Your task to perform on an android device: open app "NewsBreak: Local News & Alerts" (install if not already installed) Image 0: 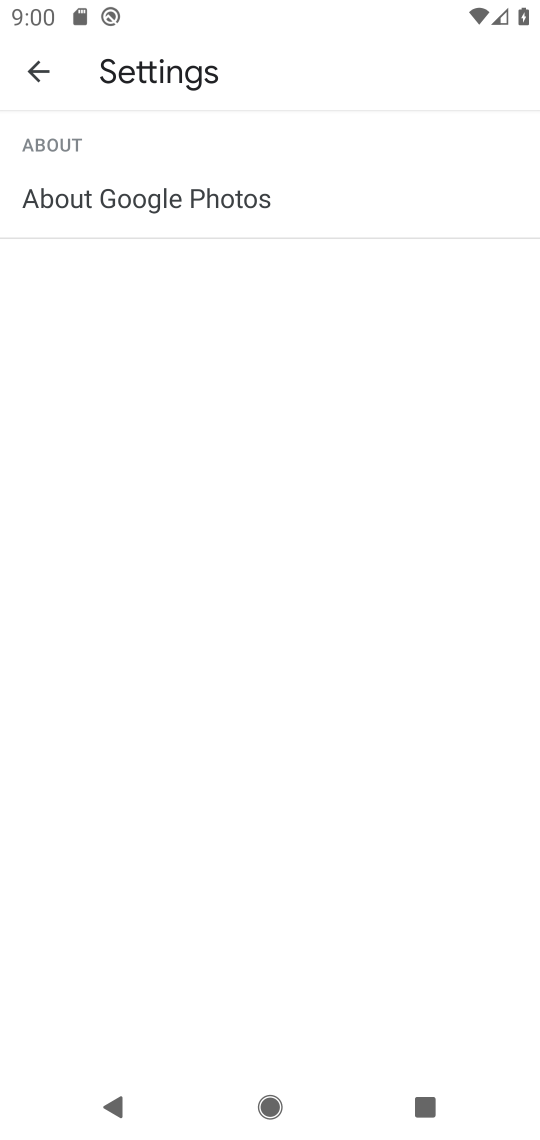
Step 0: press home button
Your task to perform on an android device: open app "NewsBreak: Local News & Alerts" (install if not already installed) Image 1: 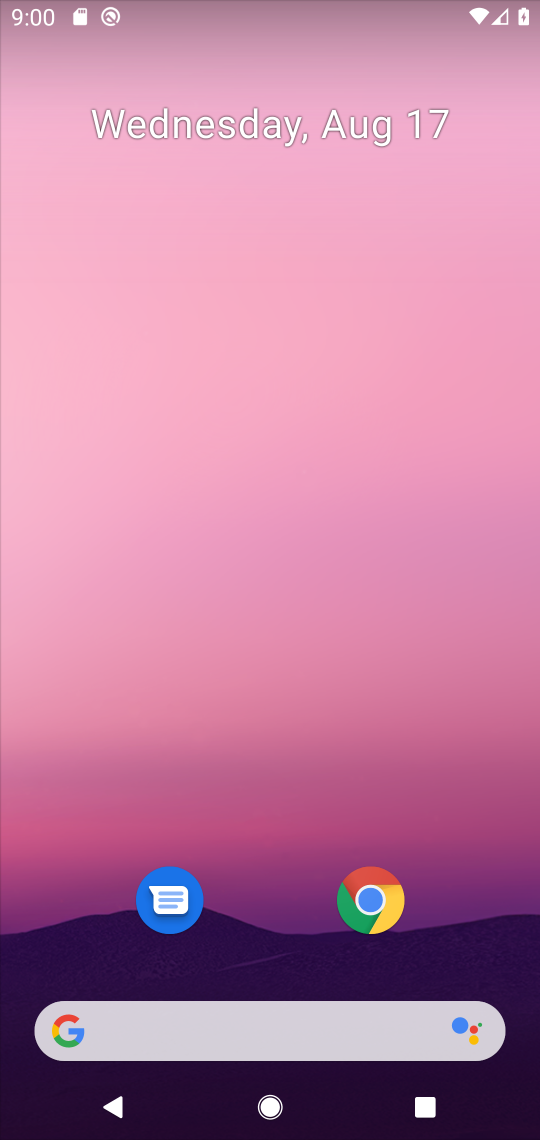
Step 1: drag from (197, 859) to (163, 145)
Your task to perform on an android device: open app "NewsBreak: Local News & Alerts" (install if not already installed) Image 2: 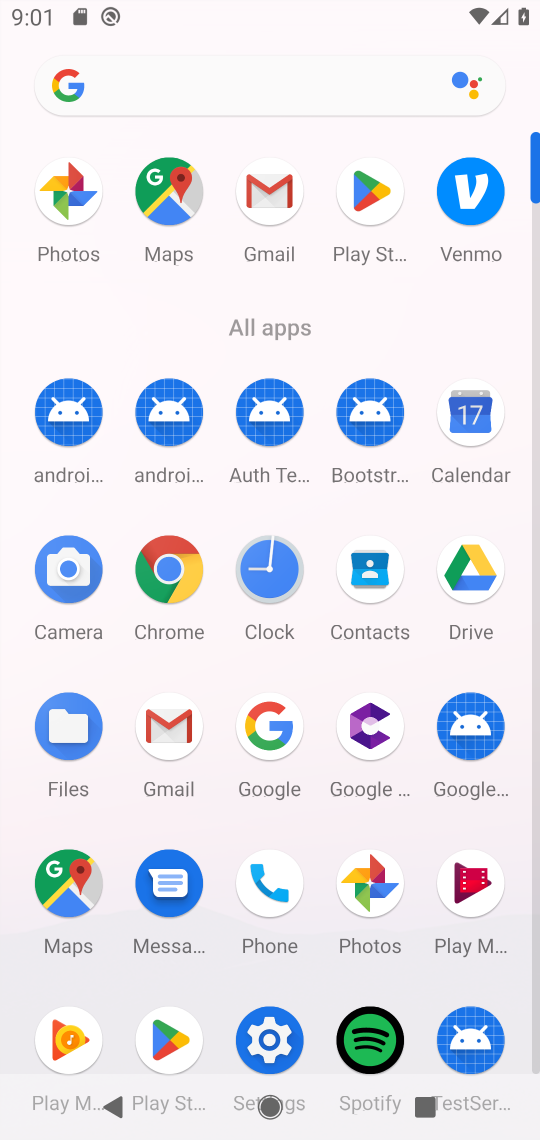
Step 2: click (364, 235)
Your task to perform on an android device: open app "NewsBreak: Local News & Alerts" (install if not already installed) Image 3: 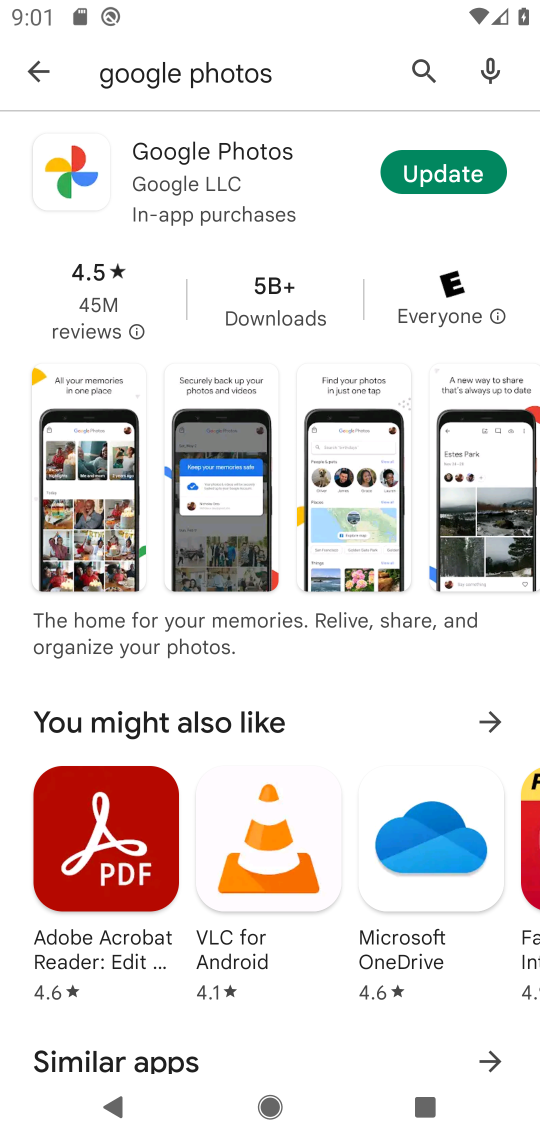
Step 3: click (48, 76)
Your task to perform on an android device: open app "NewsBreak: Local News & Alerts" (install if not already installed) Image 4: 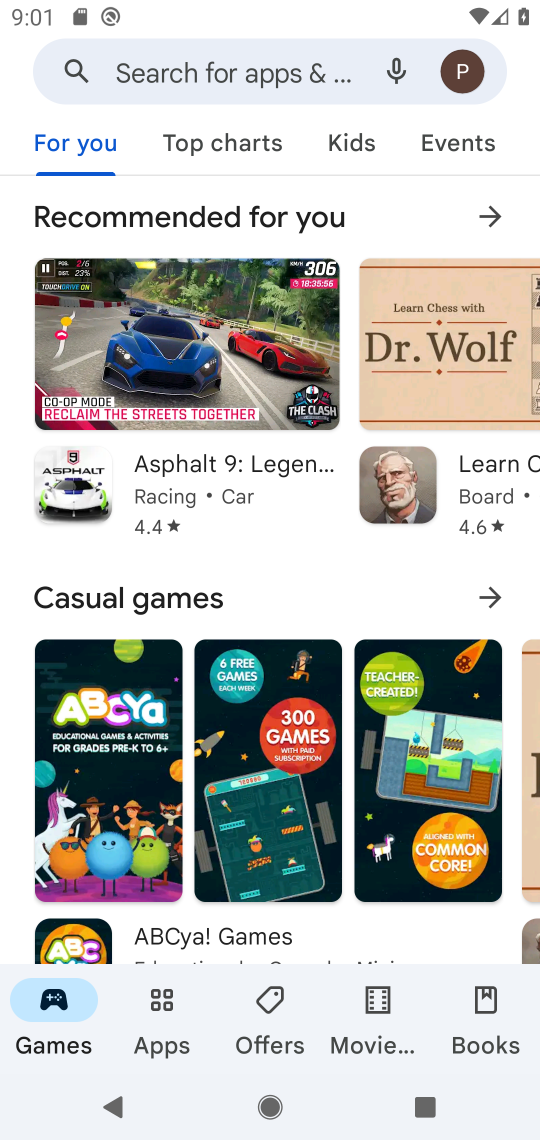
Step 4: click (195, 83)
Your task to perform on an android device: open app "NewsBreak: Local News & Alerts" (install if not already installed) Image 5: 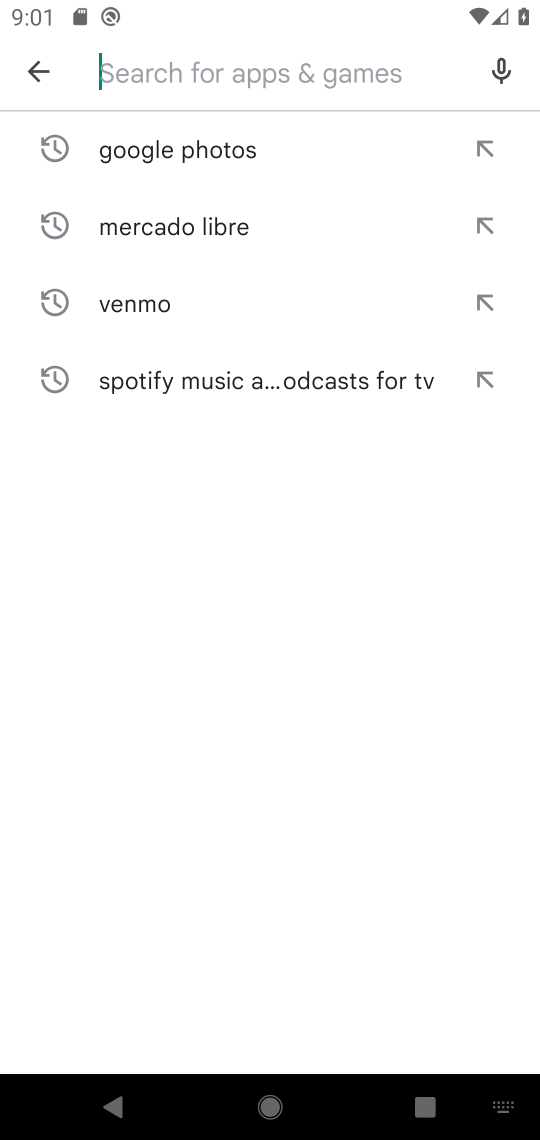
Step 5: type "NewsBreak: Local News & Alerts"
Your task to perform on an android device: open app "NewsBreak: Local News & Alerts" (install if not already installed) Image 6: 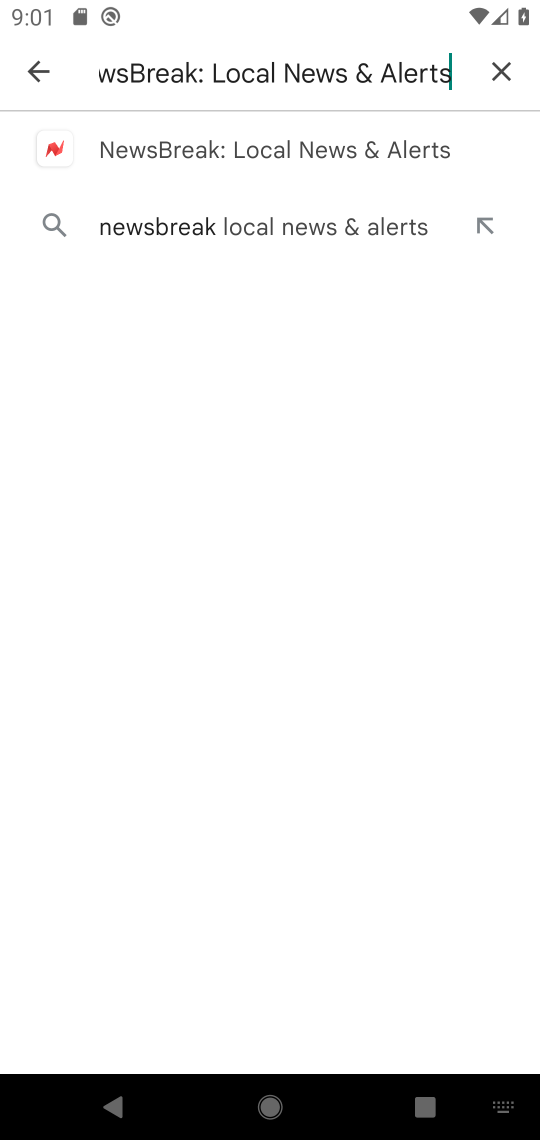
Step 6: click (391, 163)
Your task to perform on an android device: open app "NewsBreak: Local News & Alerts" (install if not already installed) Image 7: 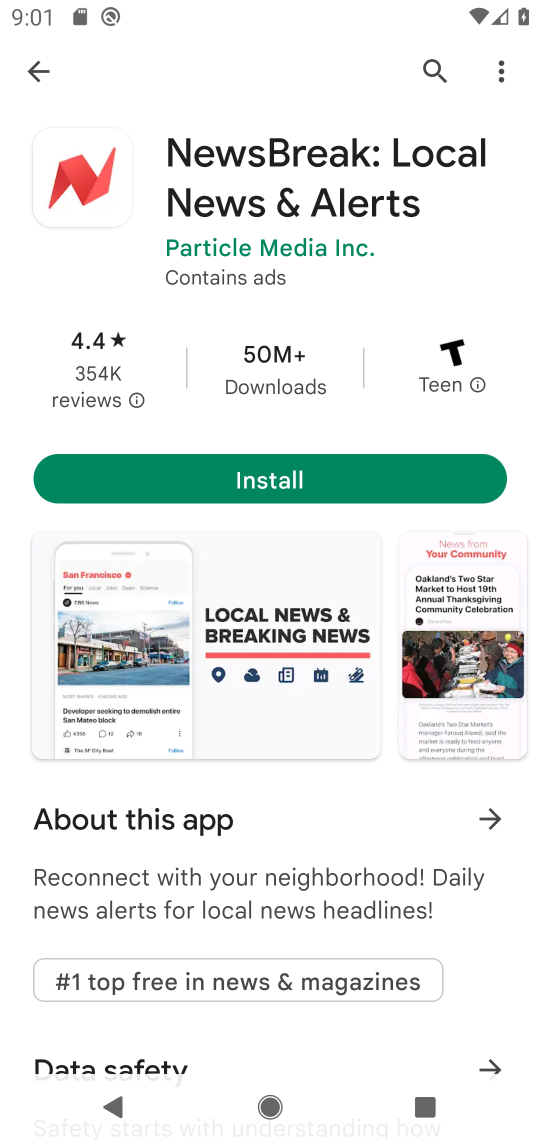
Step 7: click (243, 487)
Your task to perform on an android device: open app "NewsBreak: Local News & Alerts" (install if not already installed) Image 8: 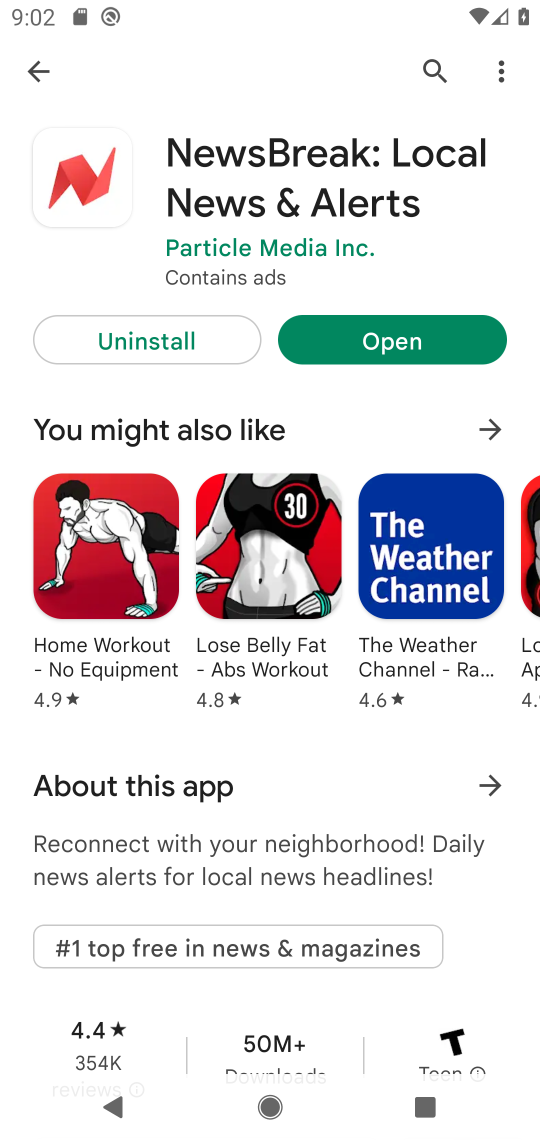
Step 8: click (461, 337)
Your task to perform on an android device: open app "NewsBreak: Local News & Alerts" (install if not already installed) Image 9: 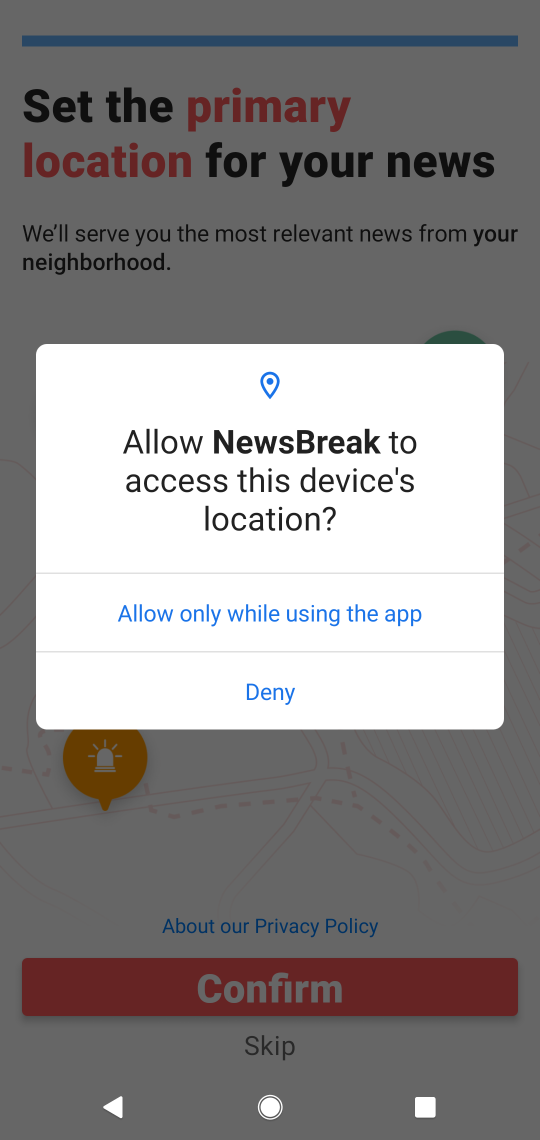
Step 9: task complete